Your task to perform on an android device: Open CNN.com Image 0: 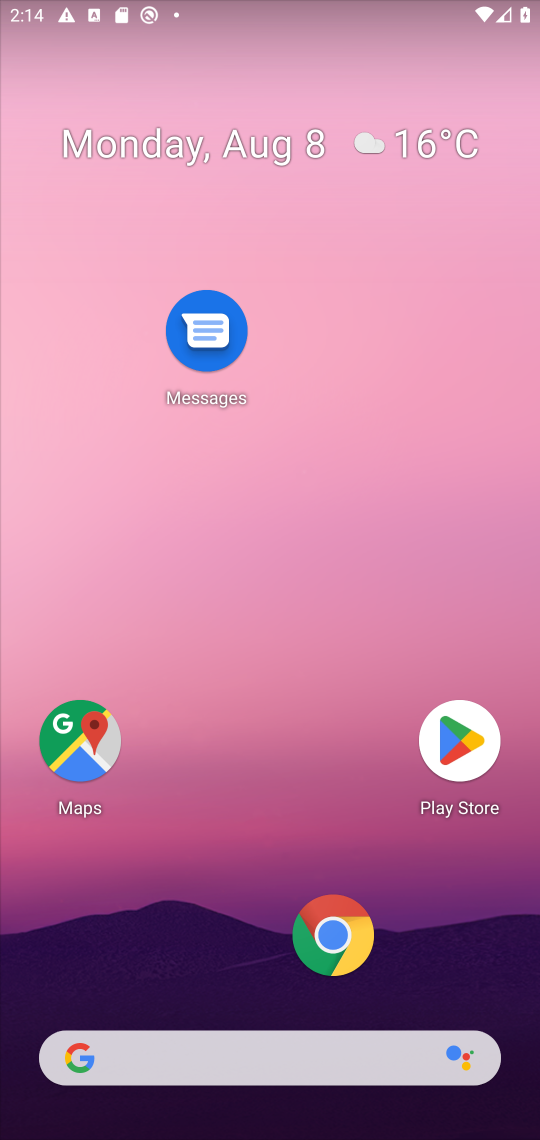
Step 0: drag from (333, 926) to (331, 92)
Your task to perform on an android device: Open CNN.com Image 1: 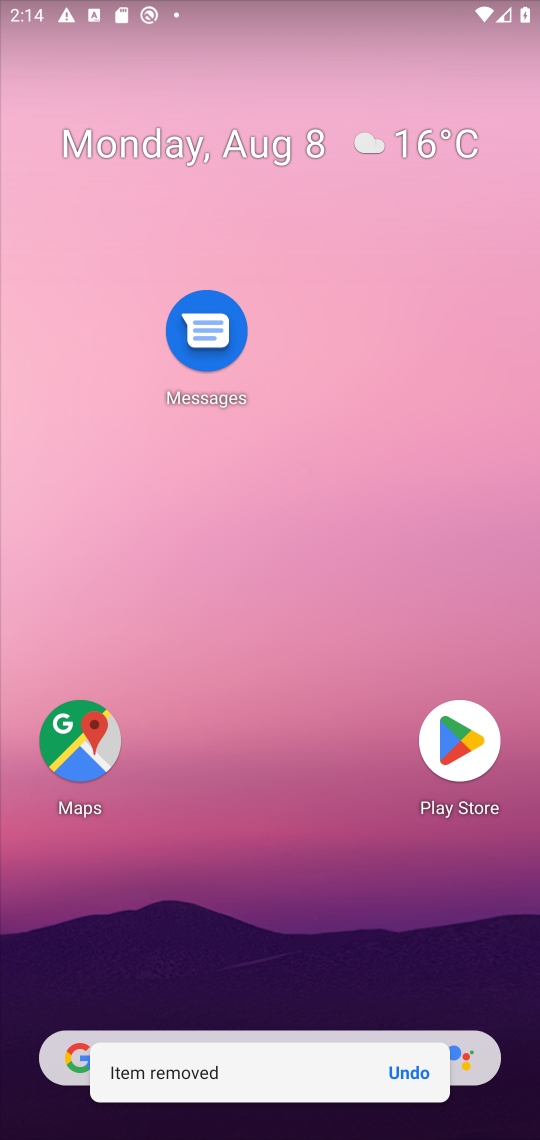
Step 1: drag from (252, 1036) to (428, 82)
Your task to perform on an android device: Open CNN.com Image 2: 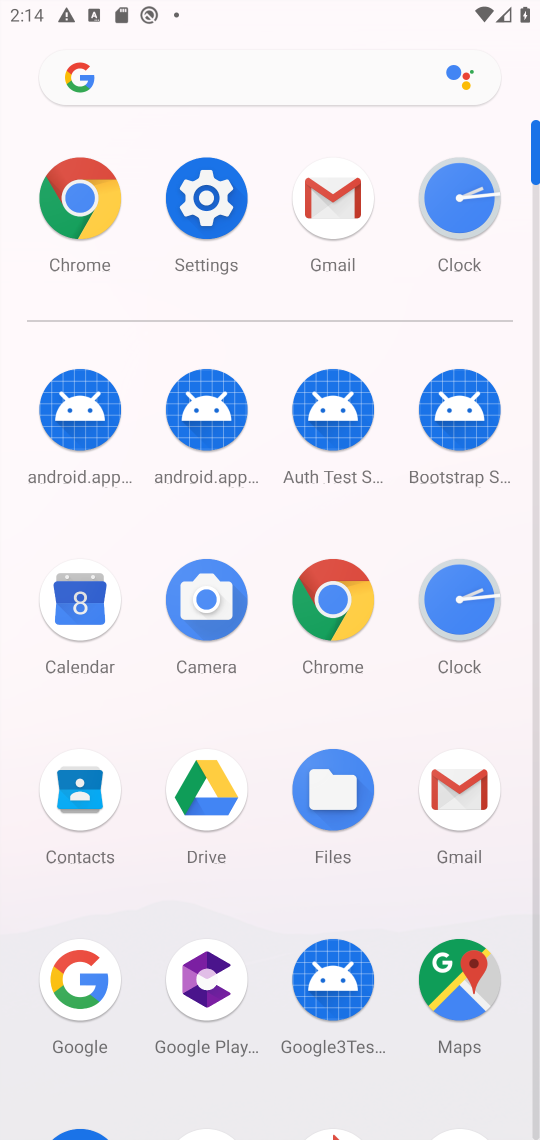
Step 2: click (329, 590)
Your task to perform on an android device: Open CNN.com Image 3: 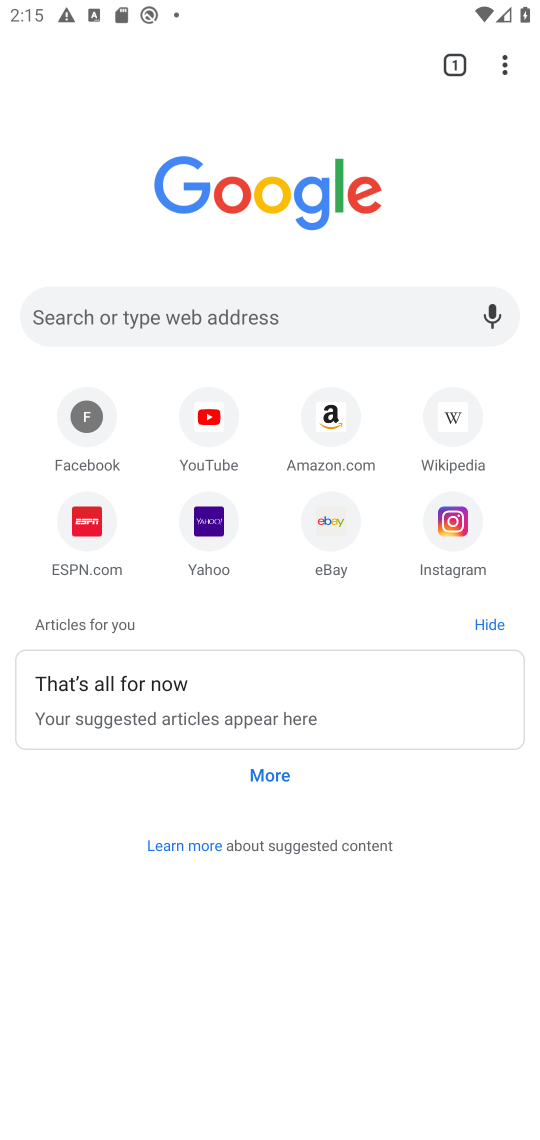
Step 3: click (287, 306)
Your task to perform on an android device: Open CNN.com Image 4: 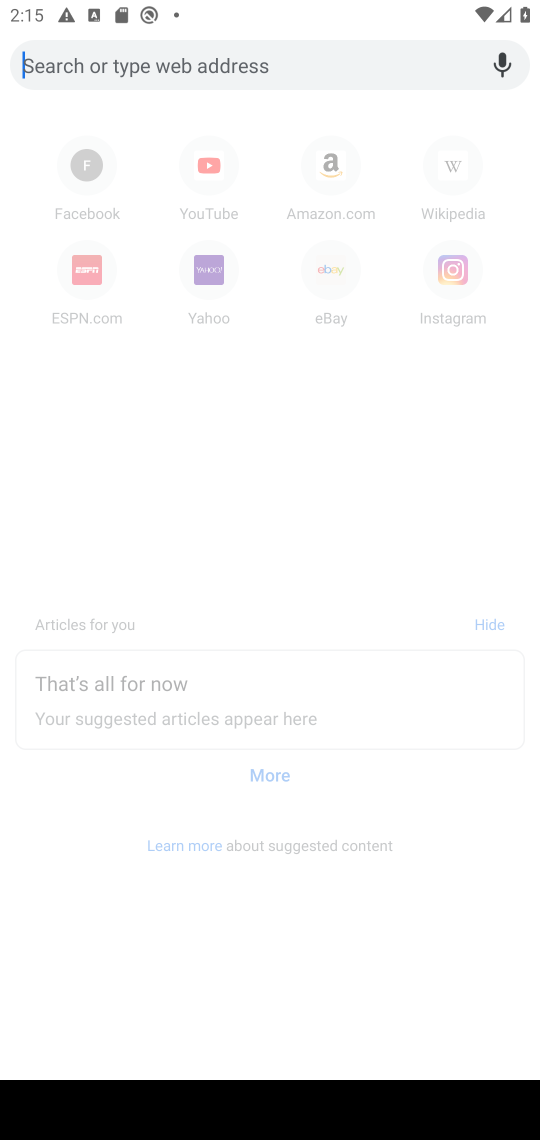
Step 4: type "cnn.com"
Your task to perform on an android device: Open CNN.com Image 5: 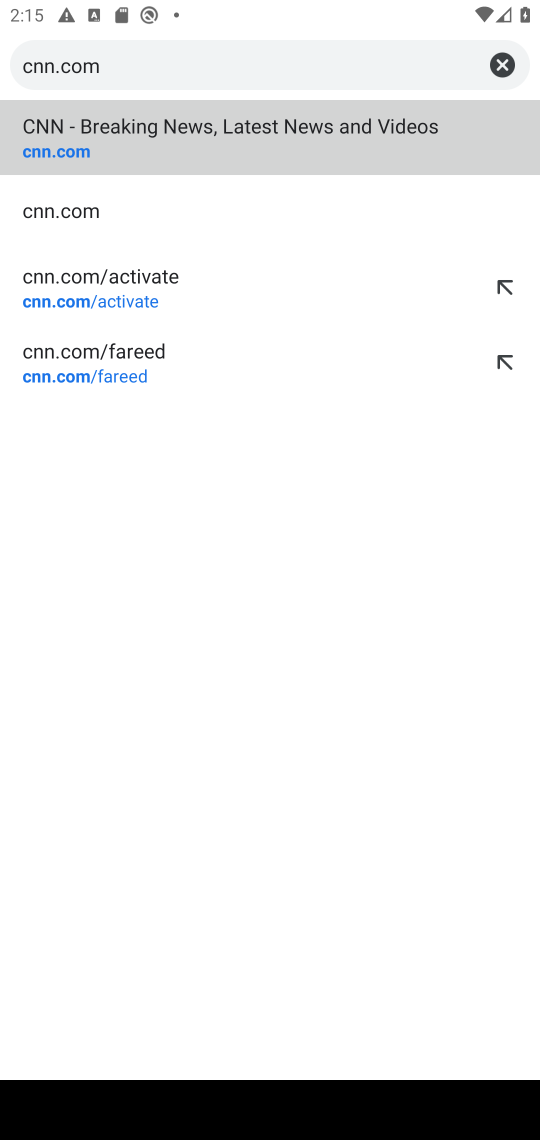
Step 5: click (224, 156)
Your task to perform on an android device: Open CNN.com Image 6: 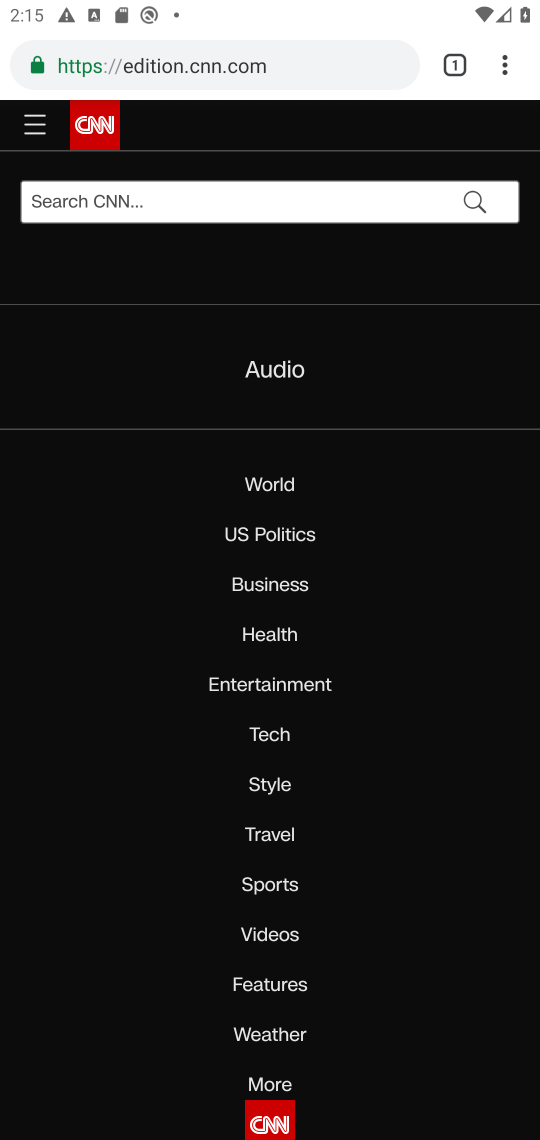
Step 6: task complete